Your task to perform on an android device: turn pop-ups off in chrome Image 0: 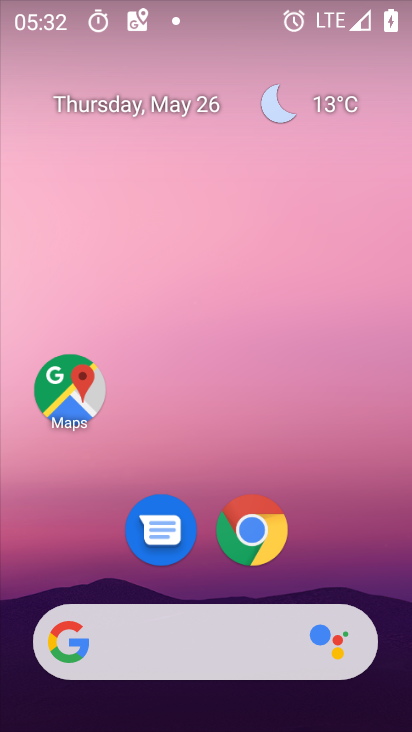
Step 0: drag from (266, 602) to (404, 13)
Your task to perform on an android device: turn pop-ups off in chrome Image 1: 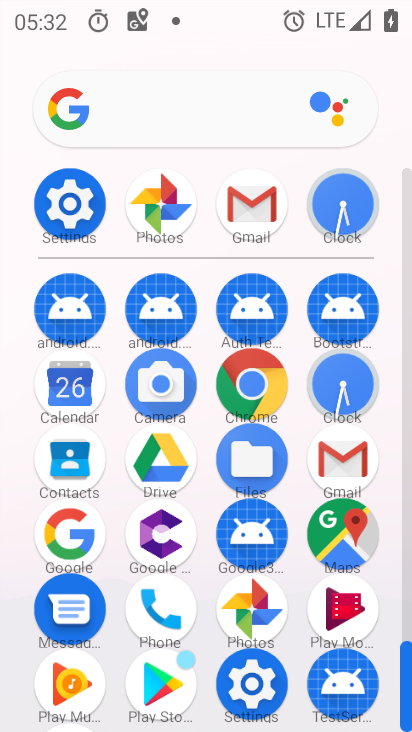
Step 1: click (277, 373)
Your task to perform on an android device: turn pop-ups off in chrome Image 2: 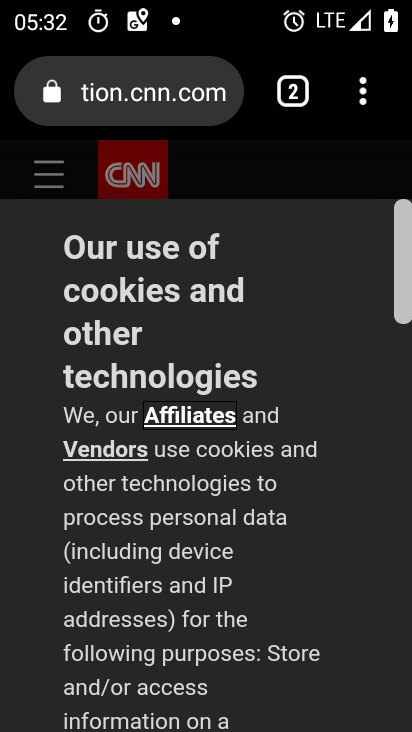
Step 2: drag from (371, 94) to (238, 555)
Your task to perform on an android device: turn pop-ups off in chrome Image 3: 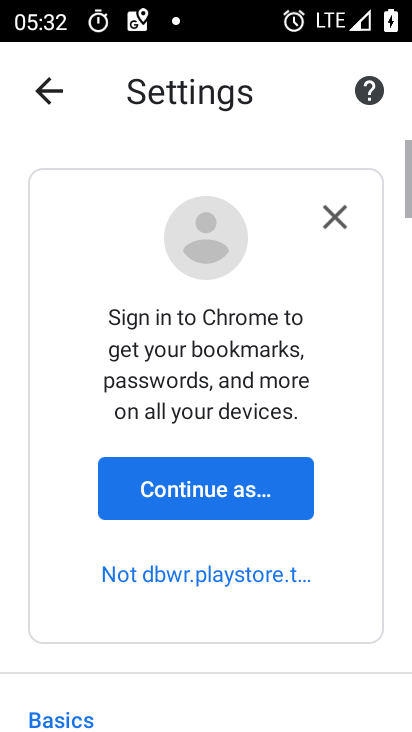
Step 3: drag from (321, 649) to (349, 59)
Your task to perform on an android device: turn pop-ups off in chrome Image 4: 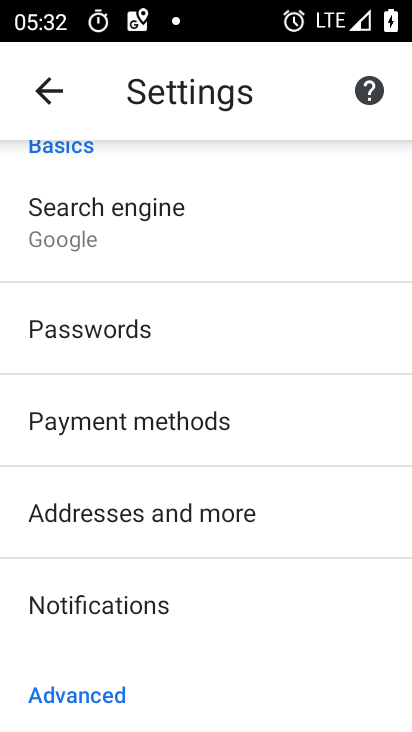
Step 4: drag from (296, 632) to (330, 153)
Your task to perform on an android device: turn pop-ups off in chrome Image 5: 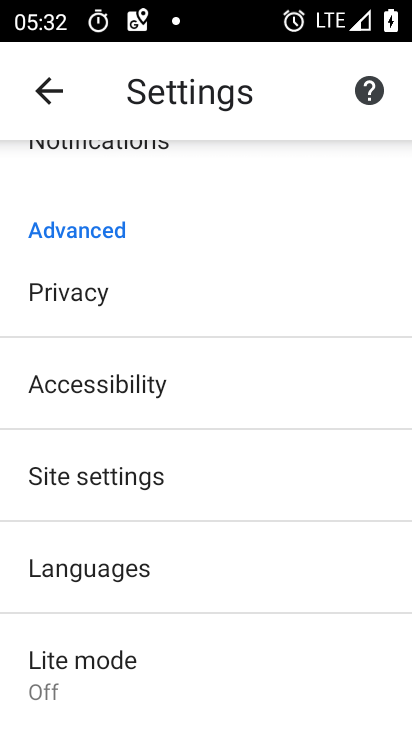
Step 5: click (190, 479)
Your task to perform on an android device: turn pop-ups off in chrome Image 6: 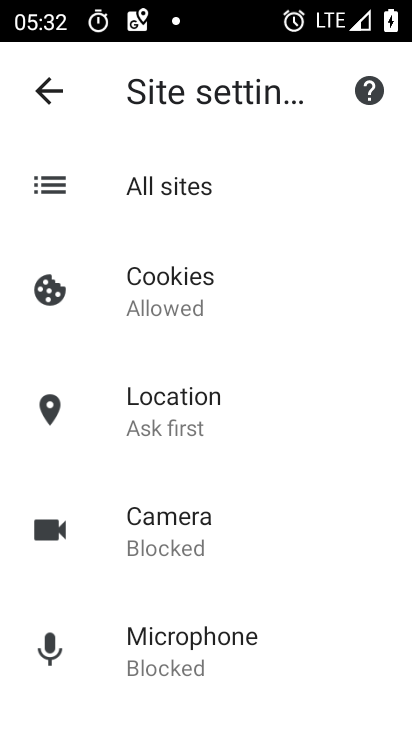
Step 6: drag from (259, 618) to (291, 187)
Your task to perform on an android device: turn pop-ups off in chrome Image 7: 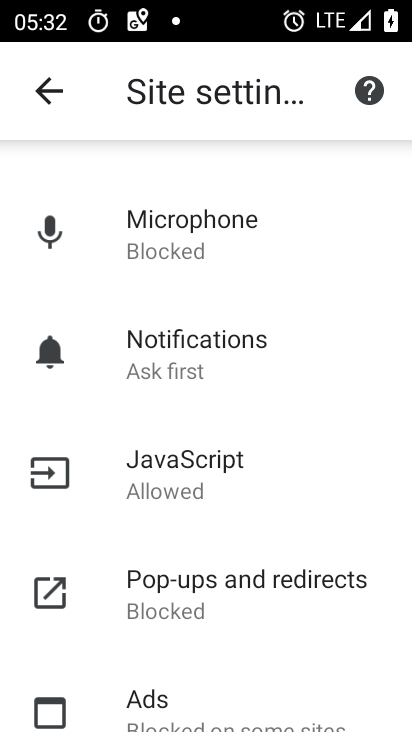
Step 7: click (292, 599)
Your task to perform on an android device: turn pop-ups off in chrome Image 8: 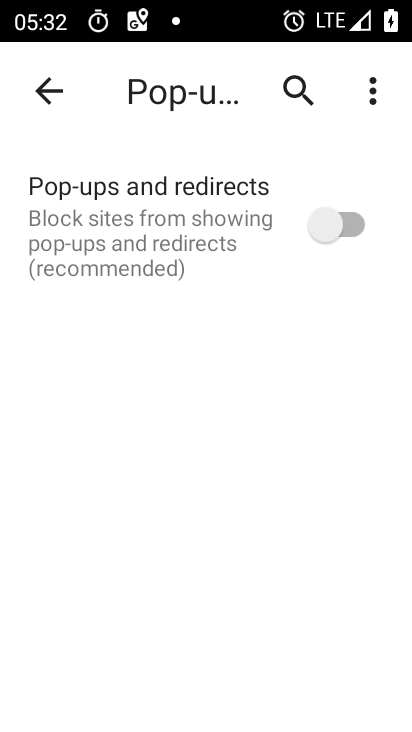
Step 8: task complete